Your task to perform on an android device: turn off javascript in the chrome app Image 0: 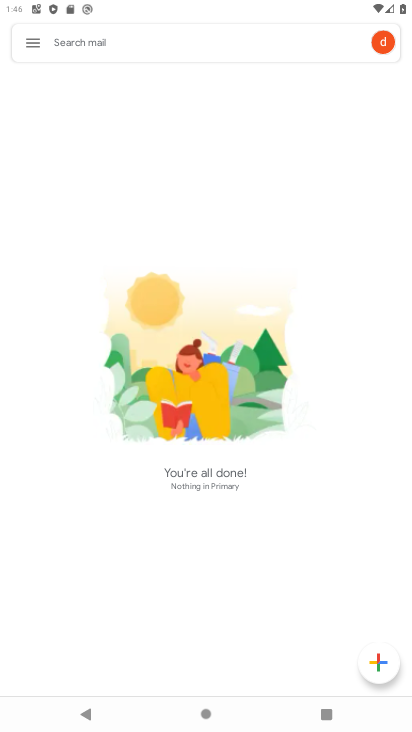
Step 0: press home button
Your task to perform on an android device: turn off javascript in the chrome app Image 1: 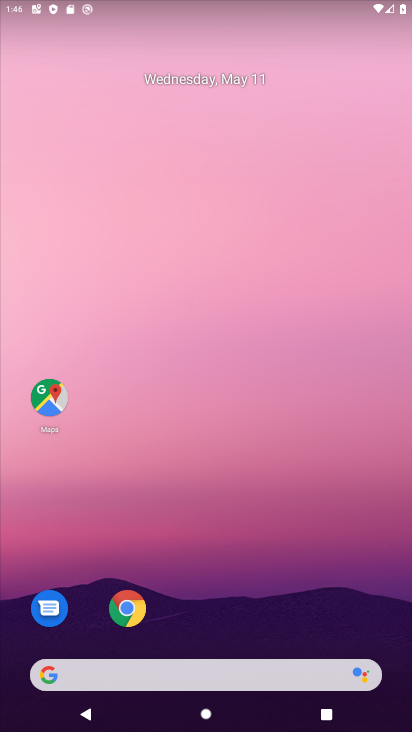
Step 1: click (117, 621)
Your task to perform on an android device: turn off javascript in the chrome app Image 2: 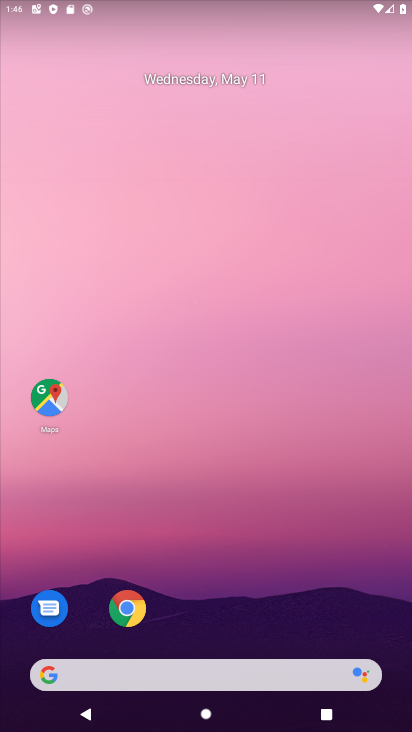
Step 2: click (117, 621)
Your task to perform on an android device: turn off javascript in the chrome app Image 3: 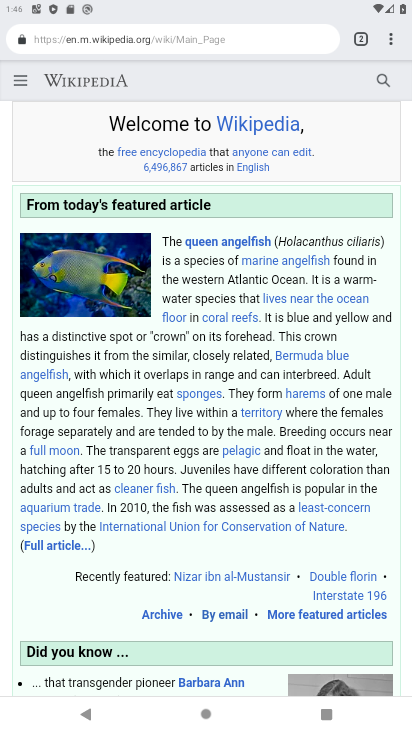
Step 3: click (390, 38)
Your task to perform on an android device: turn off javascript in the chrome app Image 4: 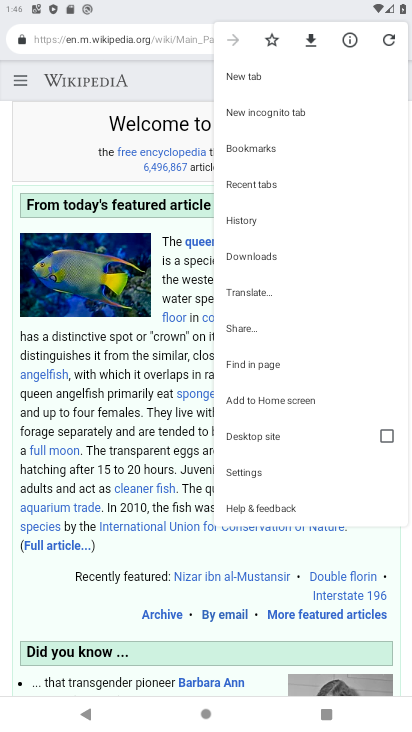
Step 4: click (317, 474)
Your task to perform on an android device: turn off javascript in the chrome app Image 5: 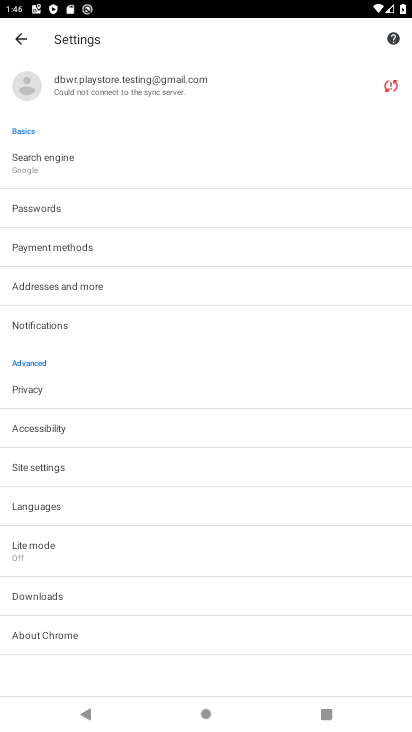
Step 5: click (199, 422)
Your task to perform on an android device: turn off javascript in the chrome app Image 6: 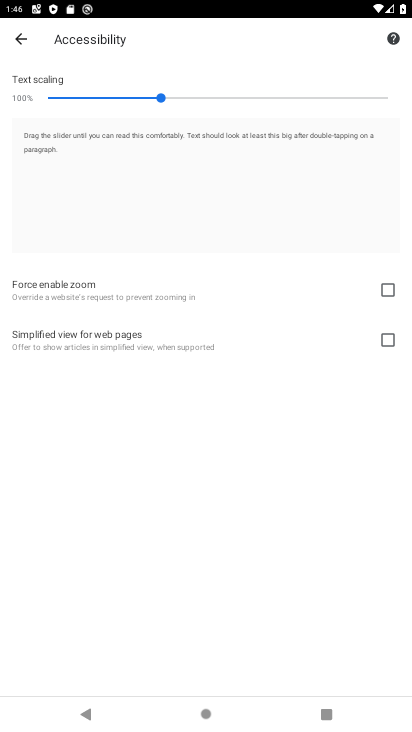
Step 6: click (11, 40)
Your task to perform on an android device: turn off javascript in the chrome app Image 7: 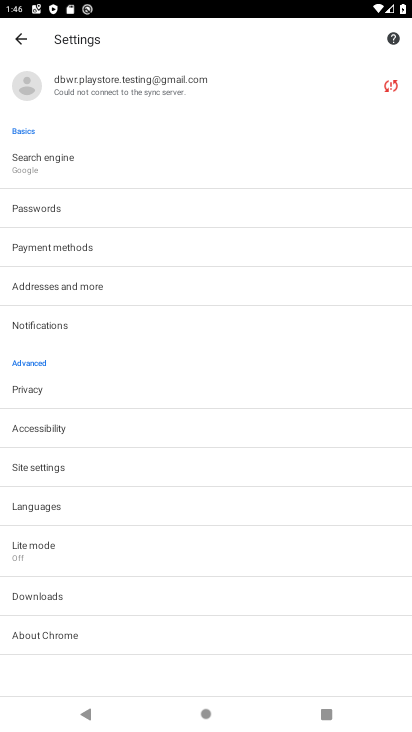
Step 7: click (91, 460)
Your task to perform on an android device: turn off javascript in the chrome app Image 8: 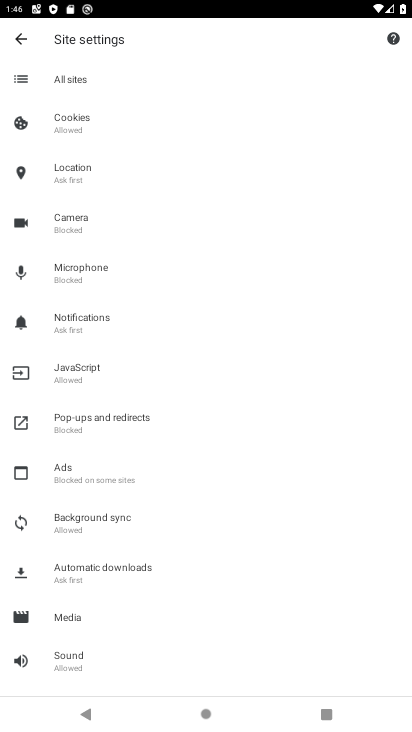
Step 8: click (163, 359)
Your task to perform on an android device: turn off javascript in the chrome app Image 9: 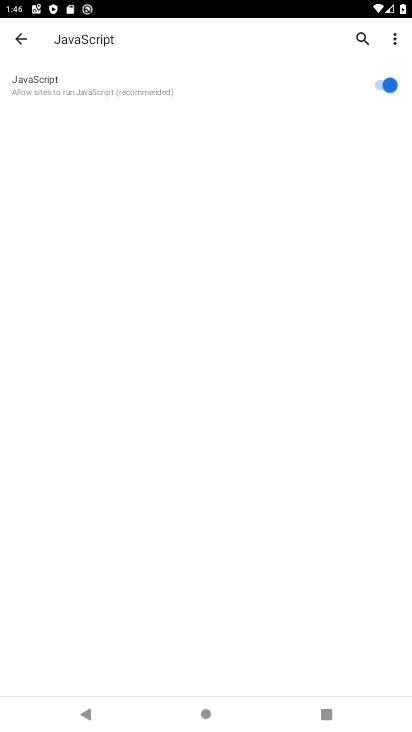
Step 9: click (385, 81)
Your task to perform on an android device: turn off javascript in the chrome app Image 10: 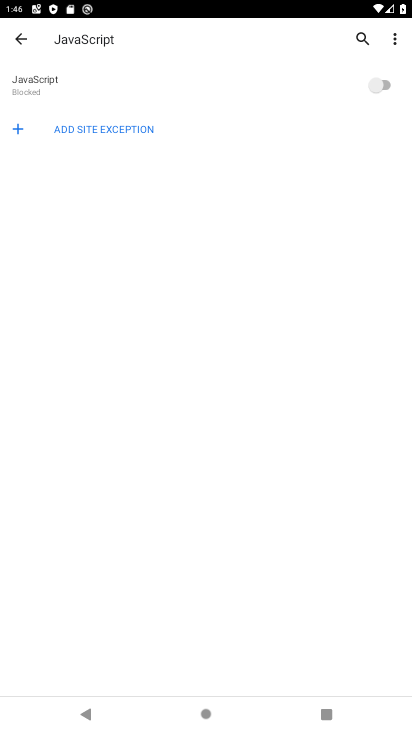
Step 10: task complete